Your task to perform on an android device: Open CNN.com Image 0: 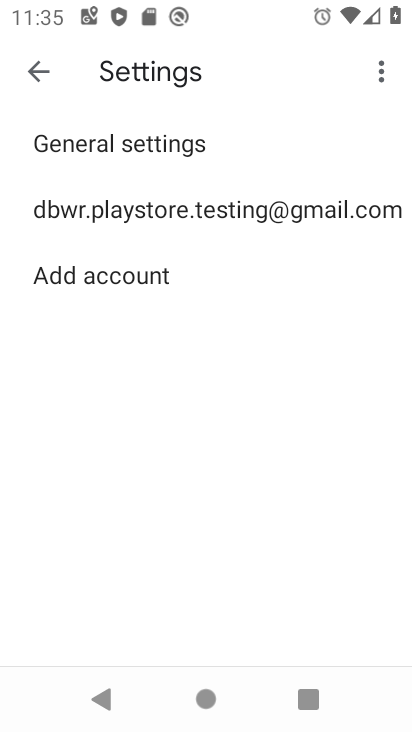
Step 0: press home button
Your task to perform on an android device: Open CNN.com Image 1: 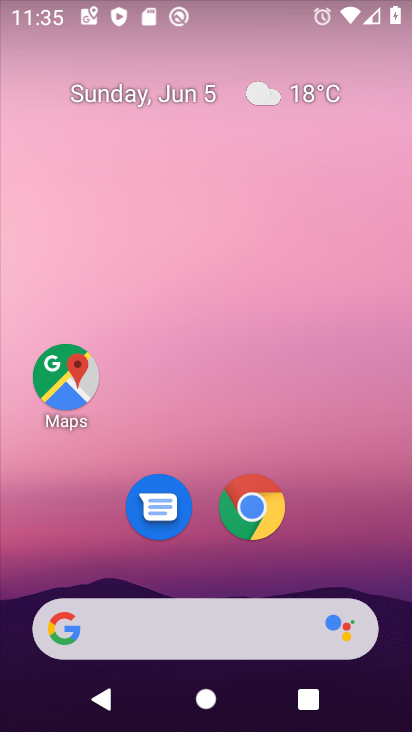
Step 1: click (257, 508)
Your task to perform on an android device: Open CNN.com Image 2: 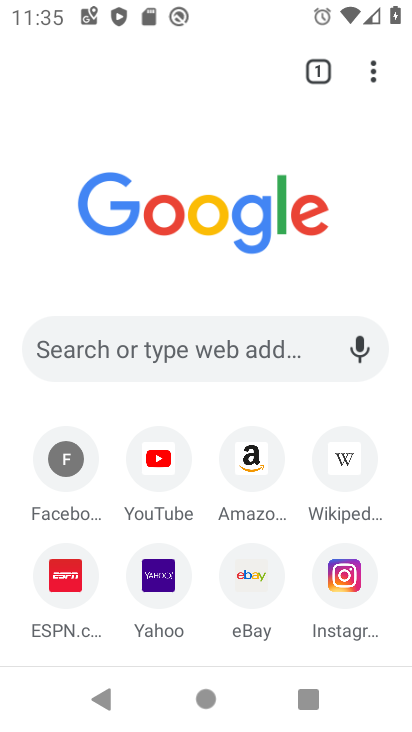
Step 2: click (180, 351)
Your task to perform on an android device: Open CNN.com Image 3: 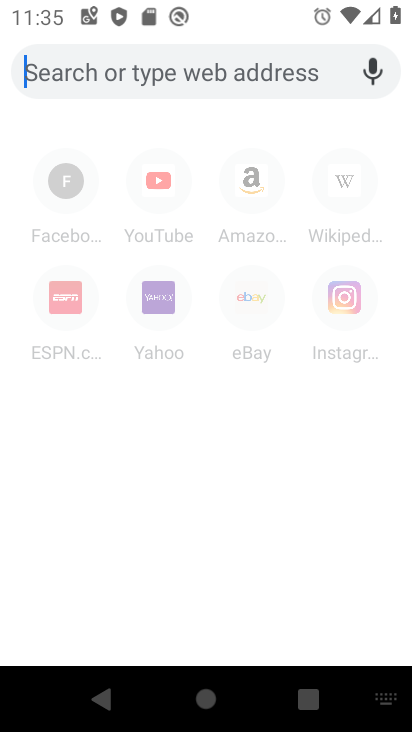
Step 3: type "CNN.com"
Your task to perform on an android device: Open CNN.com Image 4: 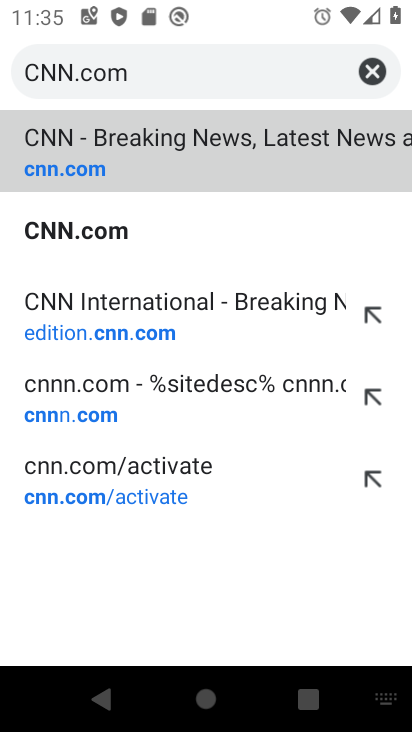
Step 4: click (91, 153)
Your task to perform on an android device: Open CNN.com Image 5: 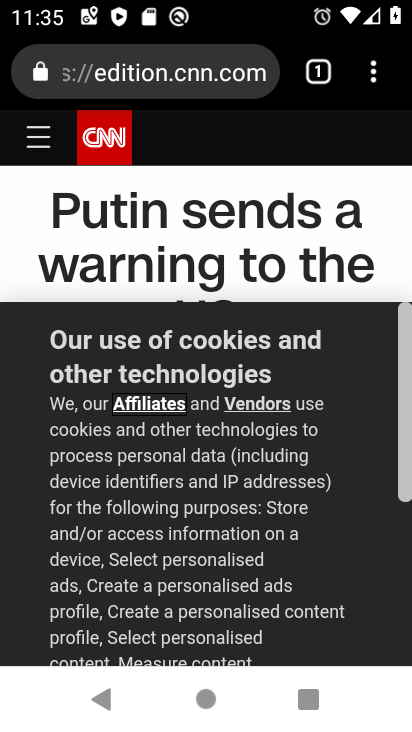
Step 5: task complete